Your task to perform on an android device: Clear all items from cart on target.com. Add "jbl charge 4" to the cart on target.com Image 0: 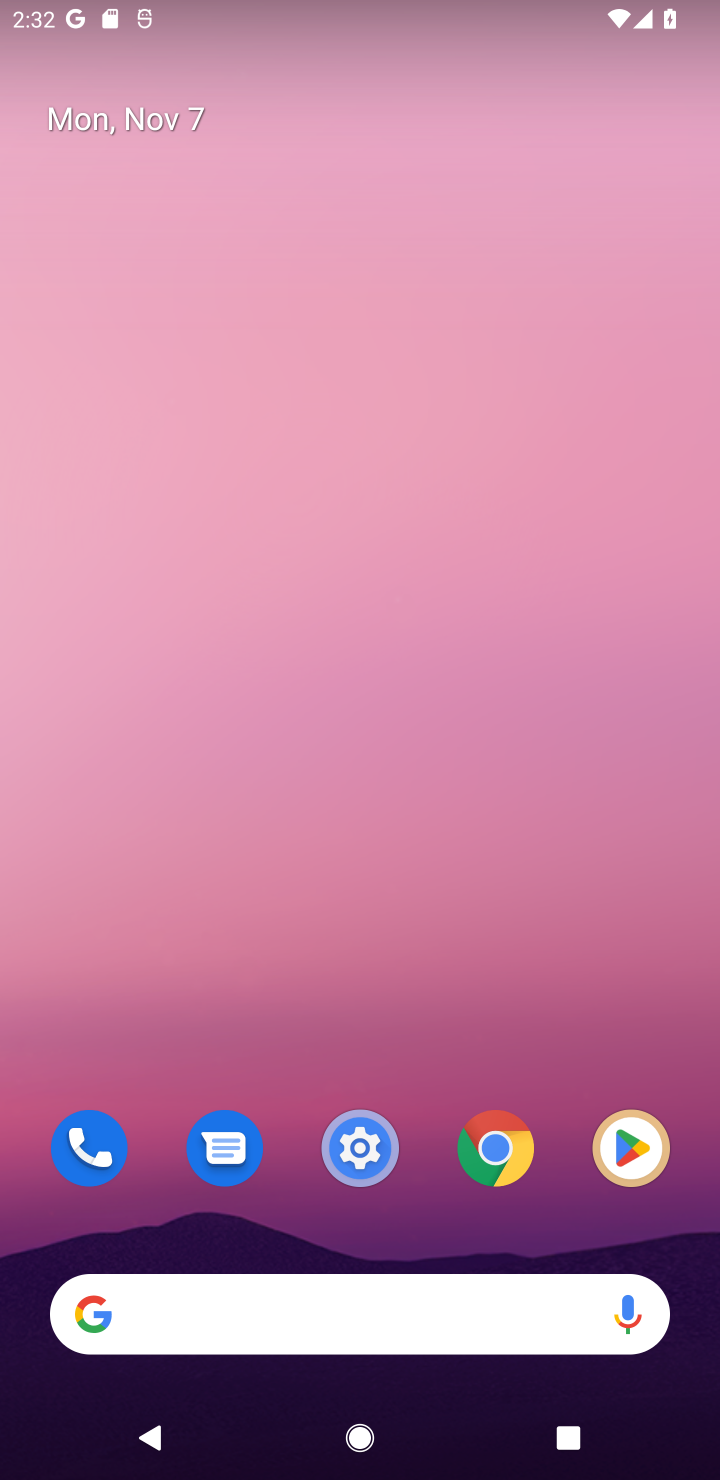
Step 0: drag from (285, 1309) to (477, 280)
Your task to perform on an android device: Clear all items from cart on target.com. Add "jbl charge 4" to the cart on target.com Image 1: 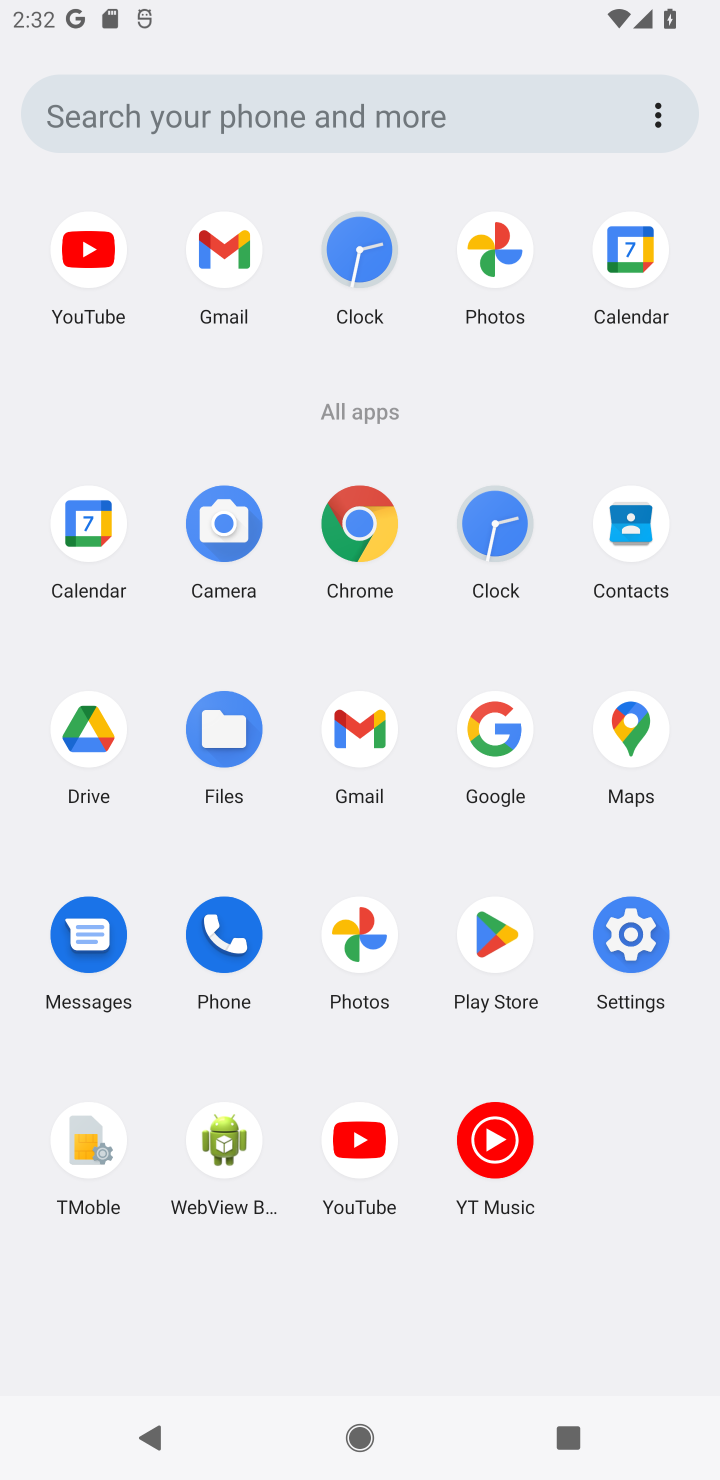
Step 1: click (366, 538)
Your task to perform on an android device: Clear all items from cart on target.com. Add "jbl charge 4" to the cart on target.com Image 2: 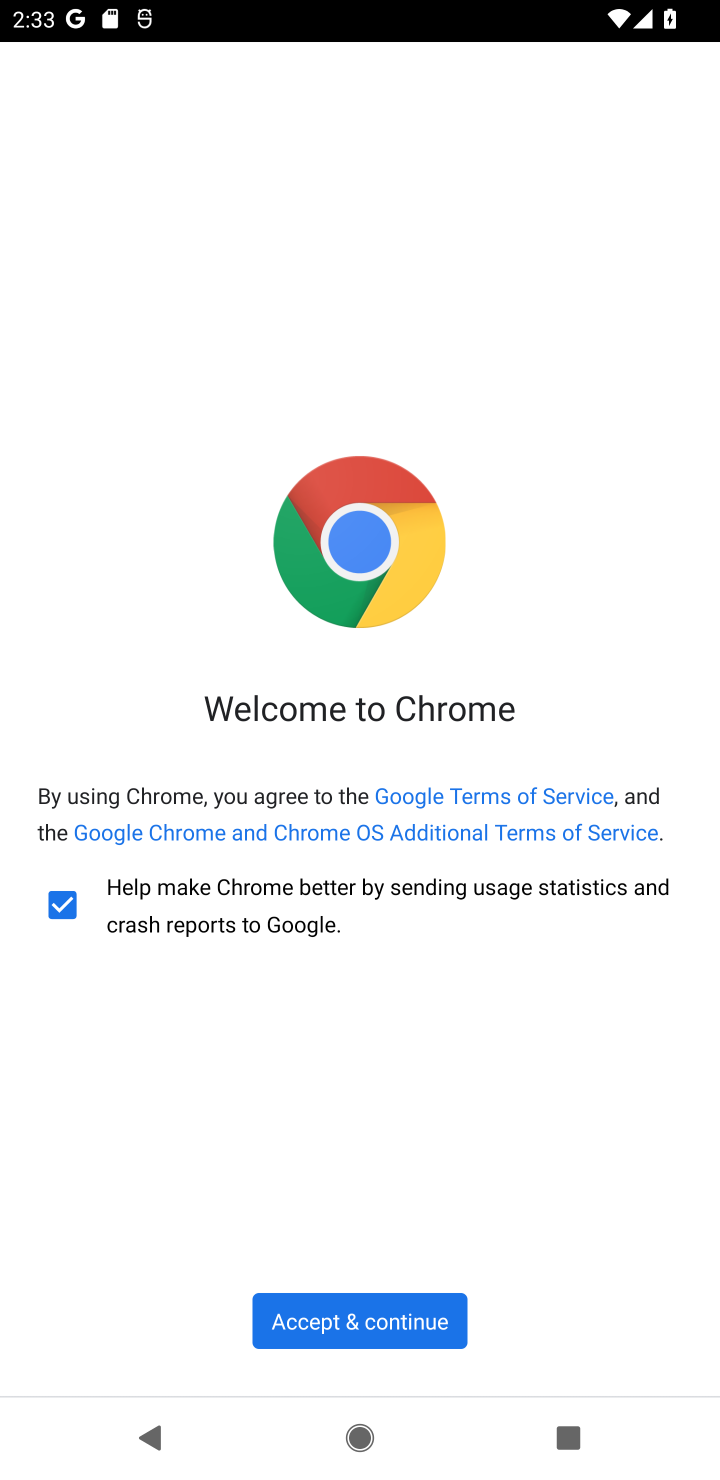
Step 2: click (313, 1319)
Your task to perform on an android device: Clear all items from cart on target.com. Add "jbl charge 4" to the cart on target.com Image 3: 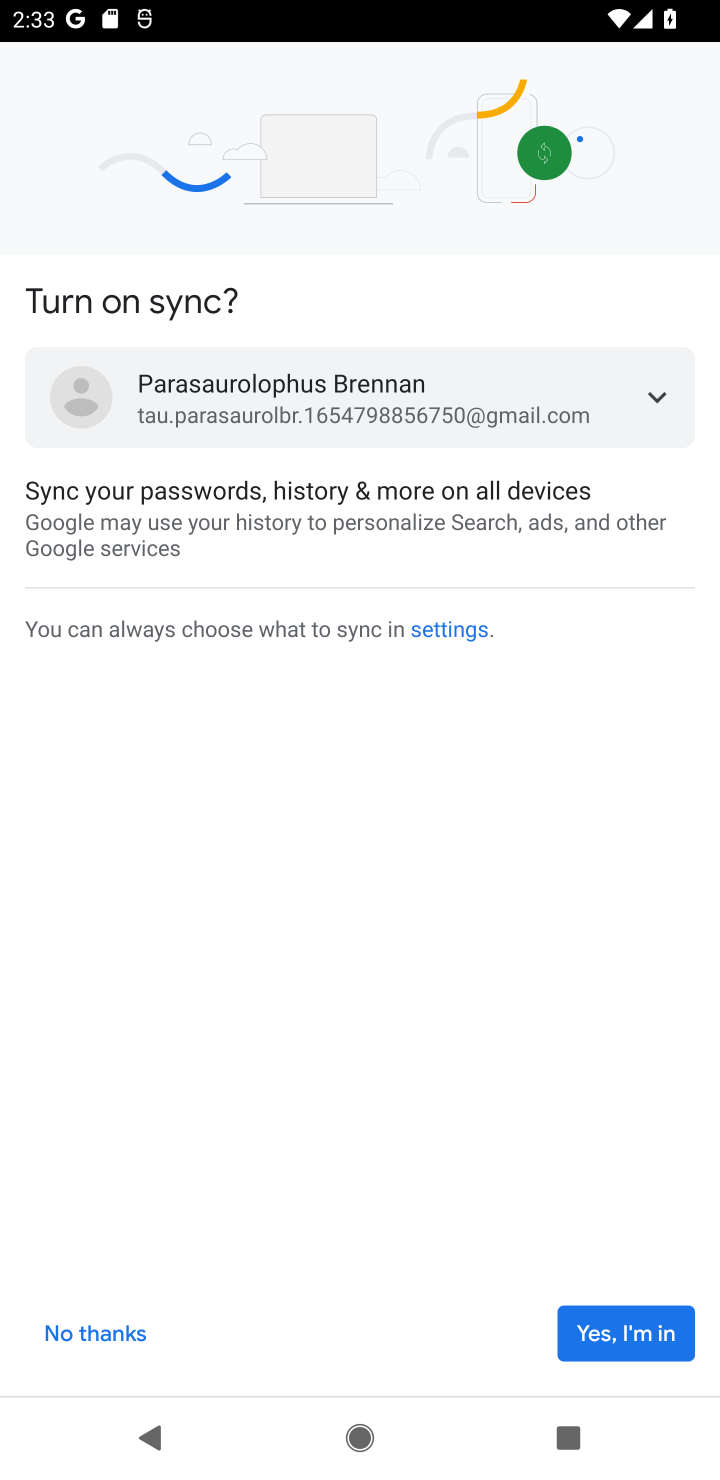
Step 3: click (569, 1317)
Your task to perform on an android device: Clear all items from cart on target.com. Add "jbl charge 4" to the cart on target.com Image 4: 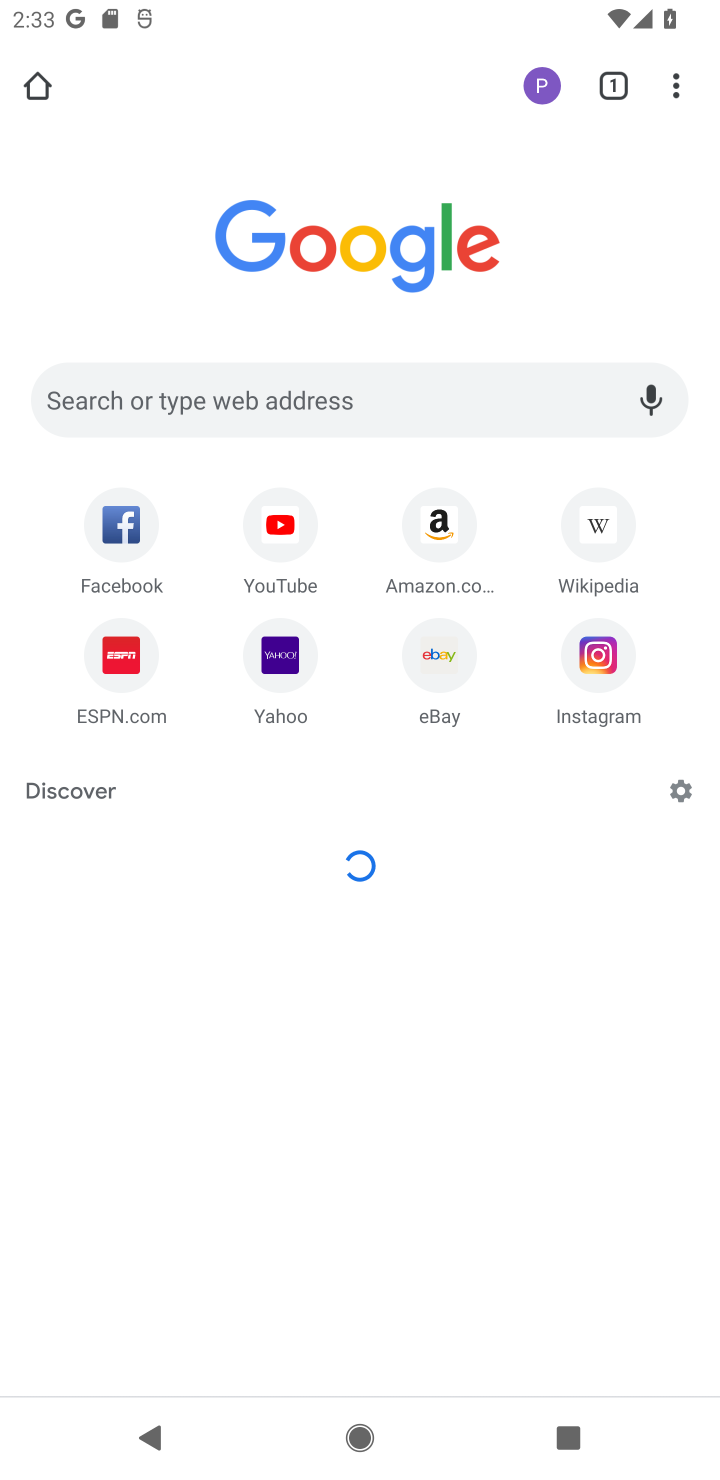
Step 4: click (259, 410)
Your task to perform on an android device: Clear all items from cart on target.com. Add "jbl charge 4" to the cart on target.com Image 5: 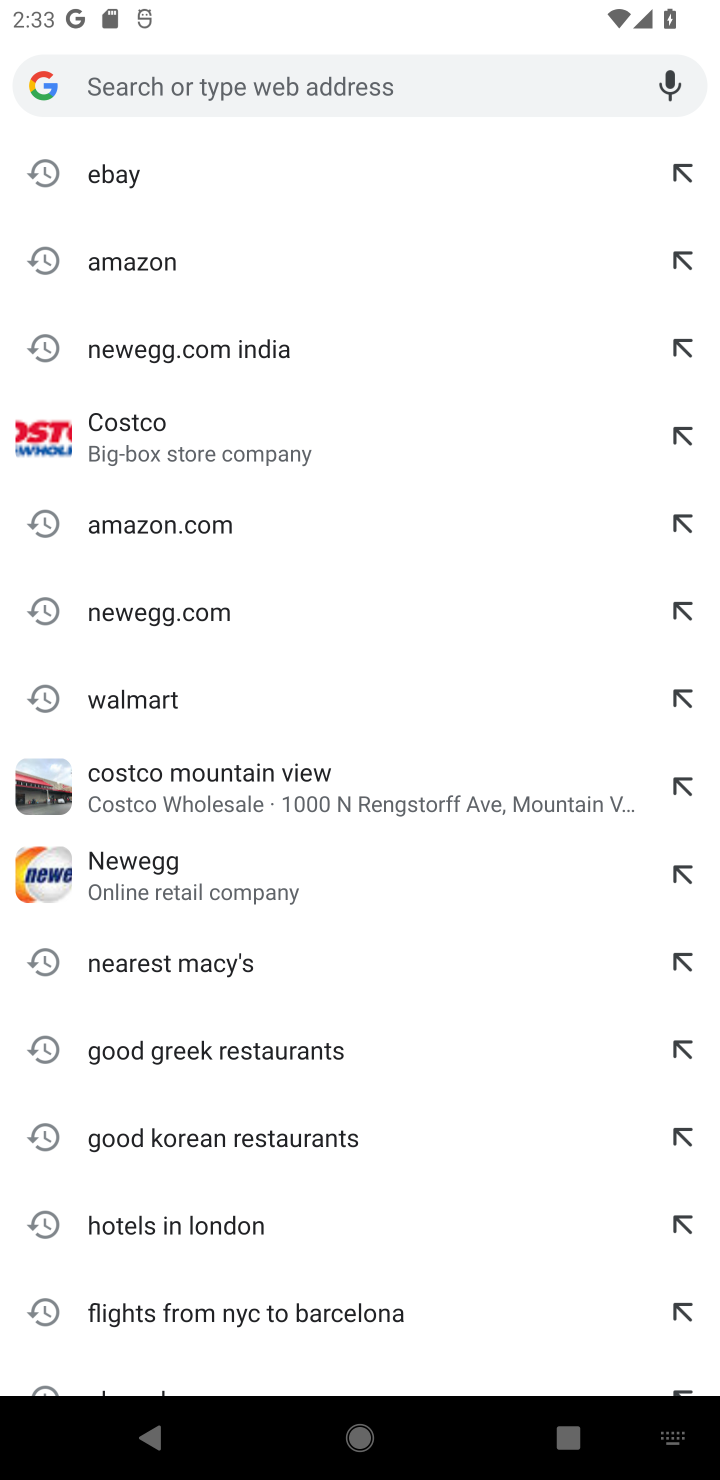
Step 5: type " target.com. "
Your task to perform on an android device: Clear all items from cart on target.com. Add "jbl charge 4" to the cart on target.com Image 6: 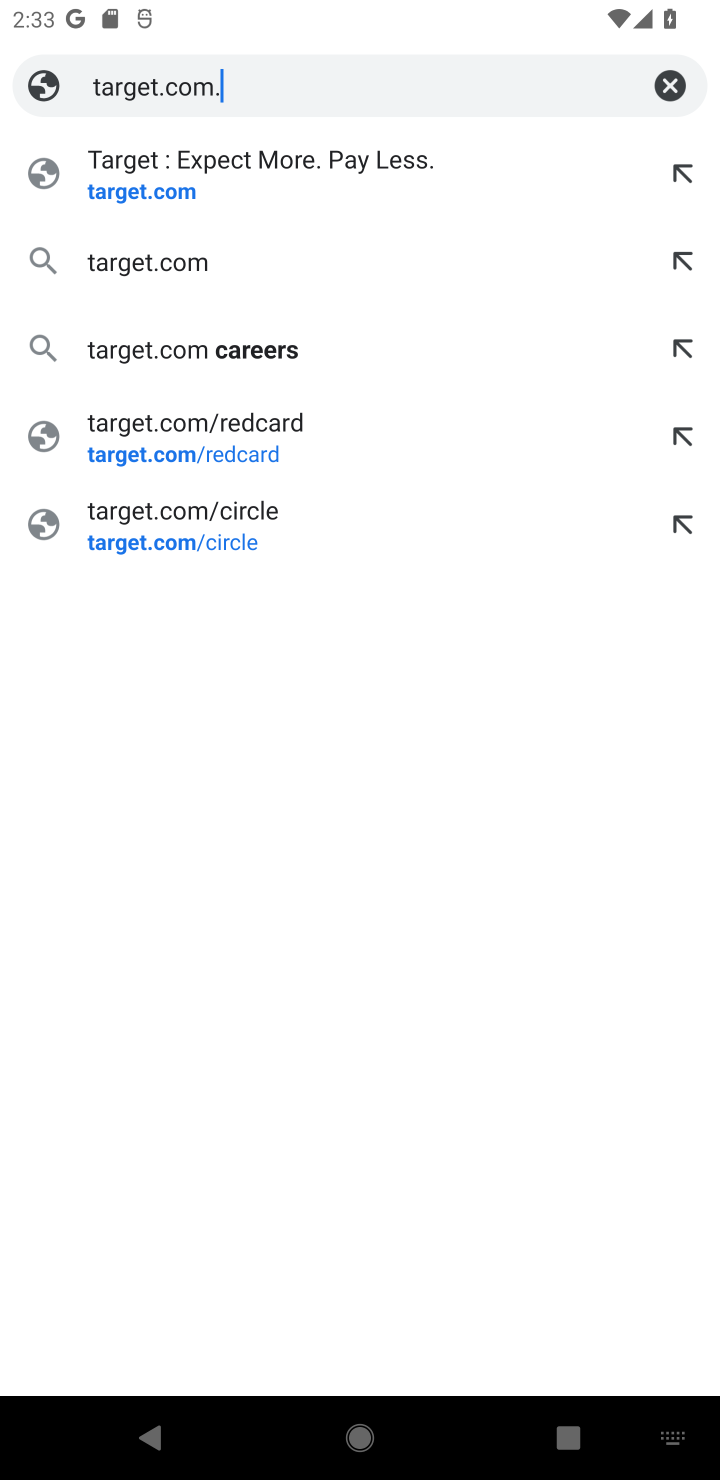
Step 6: press enter
Your task to perform on an android device: Clear all items from cart on target.com. Add "jbl charge 4" to the cart on target.com Image 7: 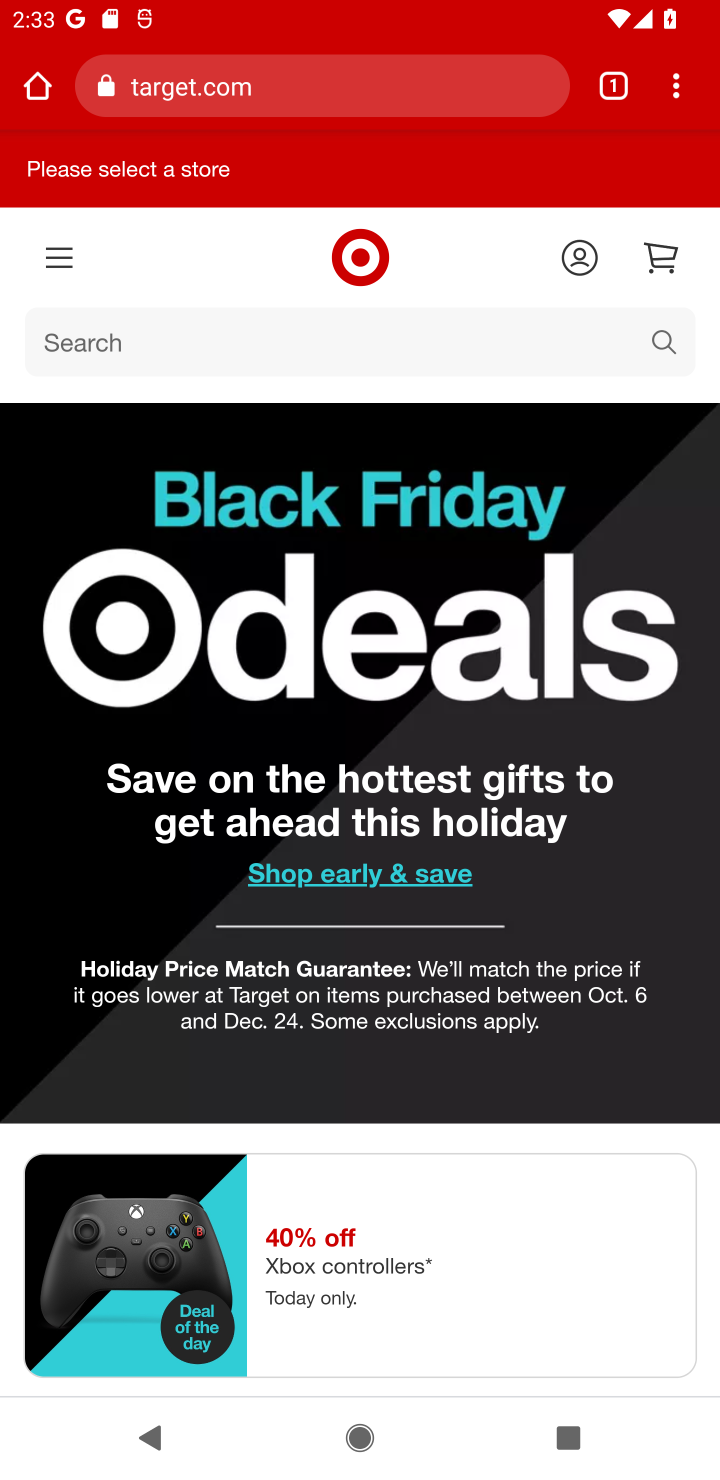
Step 7: click (317, 333)
Your task to perform on an android device: Clear all items from cart on target.com. Add "jbl charge 4" to the cart on target.com Image 8: 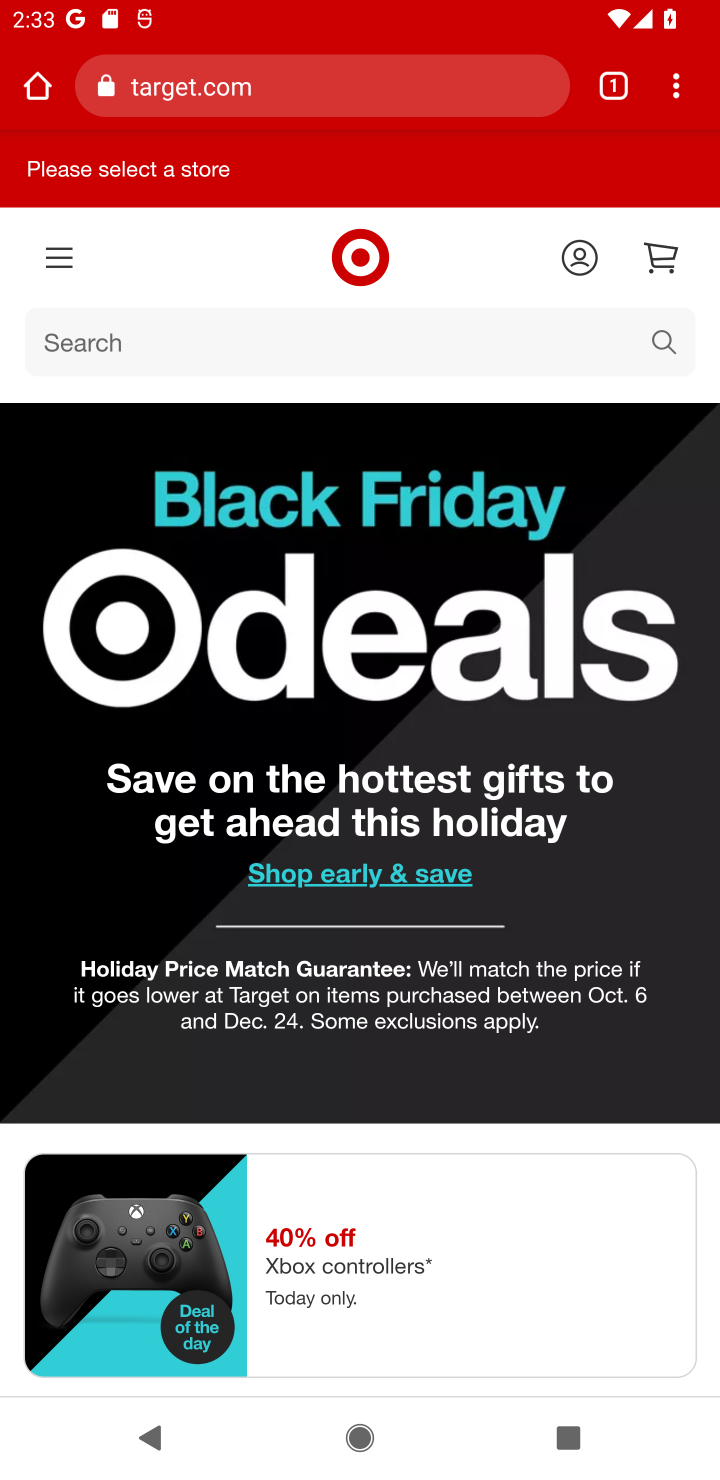
Step 8: click (664, 257)
Your task to perform on an android device: Clear all items from cart on target.com. Add "jbl charge 4" to the cart on target.com Image 9: 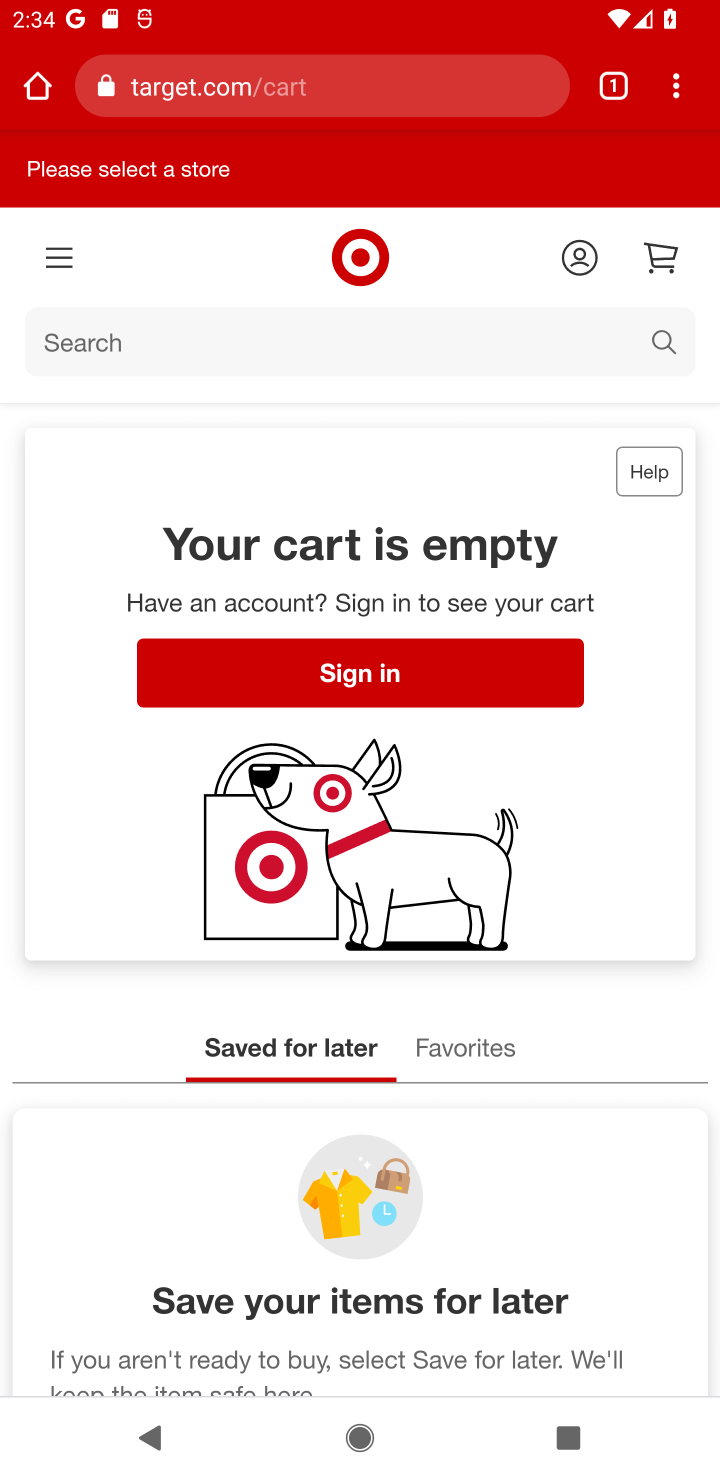
Step 9: click (402, 342)
Your task to perform on an android device: Clear all items from cart on target.com. Add "jbl charge 4" to the cart on target.com Image 10: 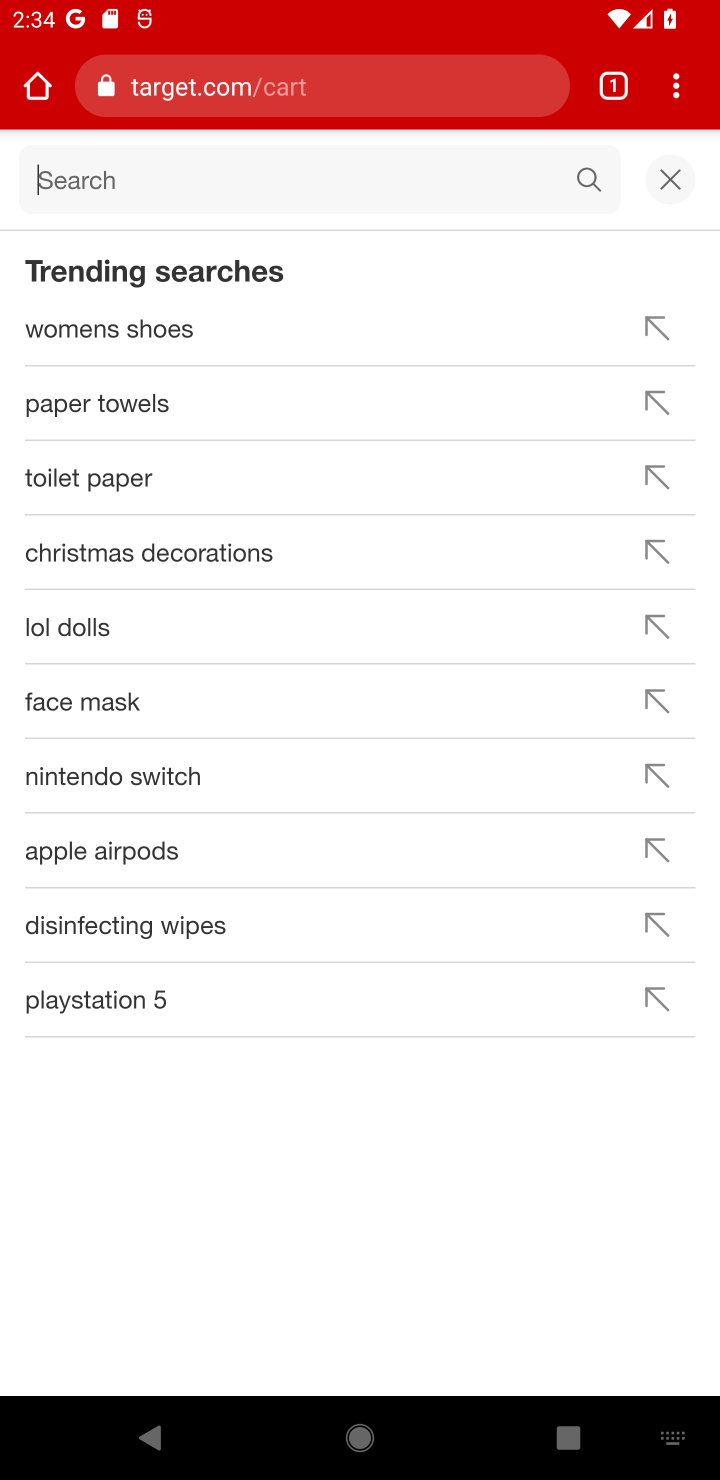
Step 10: type "jbl charge 4"
Your task to perform on an android device: Clear all items from cart on target.com. Add "jbl charge 4" to the cart on target.com Image 11: 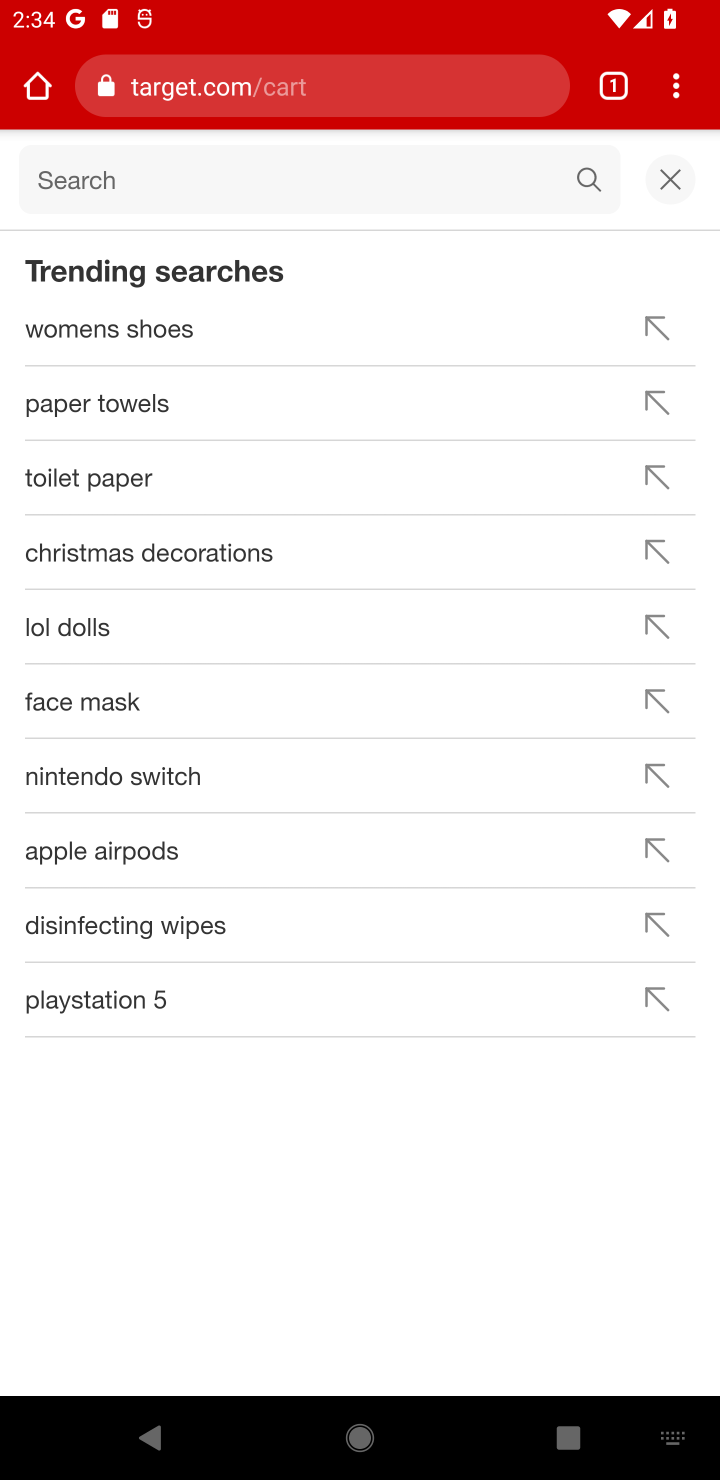
Step 11: press enter
Your task to perform on an android device: Clear all items from cart on target.com. Add "jbl charge 4" to the cart on target.com Image 12: 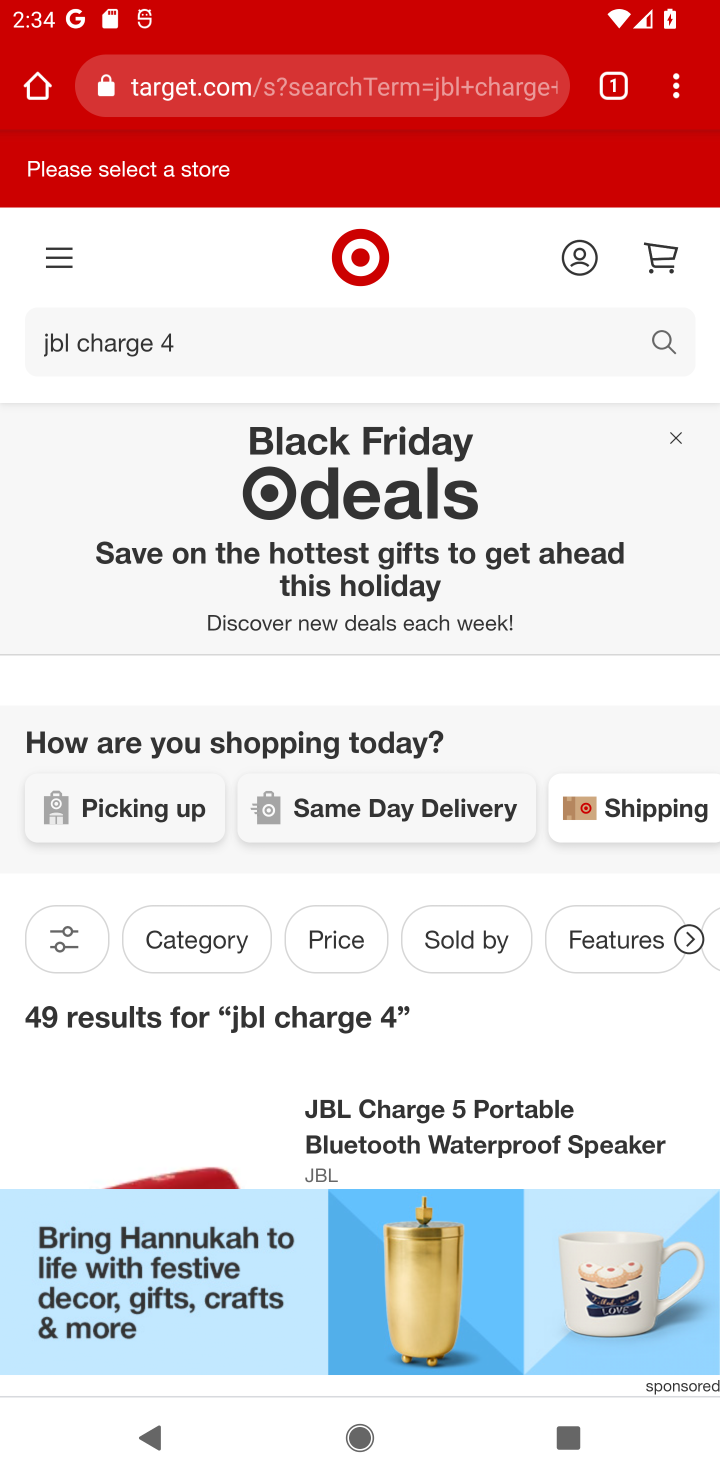
Step 12: drag from (466, 1145) to (521, 556)
Your task to perform on an android device: Clear all items from cart on target.com. Add "jbl charge 4" to the cart on target.com Image 13: 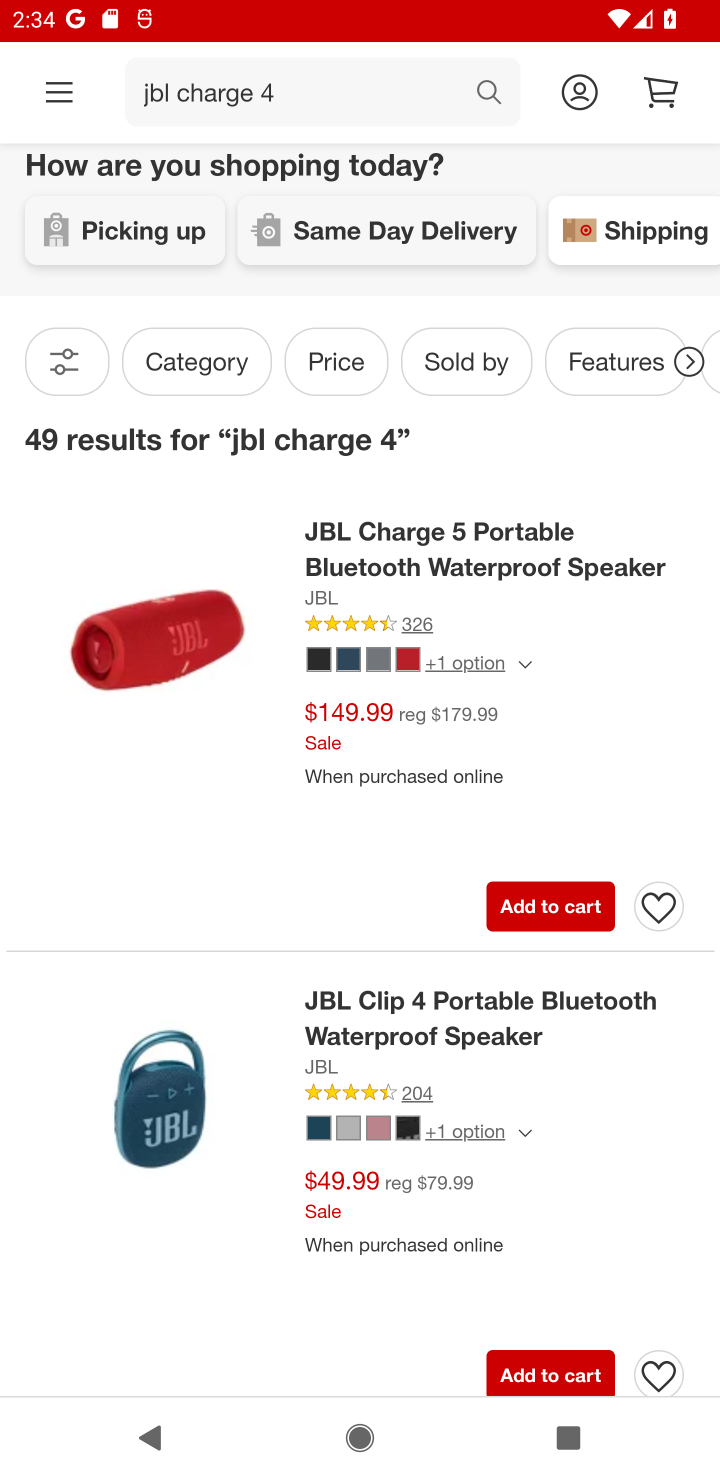
Step 13: click (555, 902)
Your task to perform on an android device: Clear all items from cart on target.com. Add "jbl charge 4" to the cart on target.com Image 14: 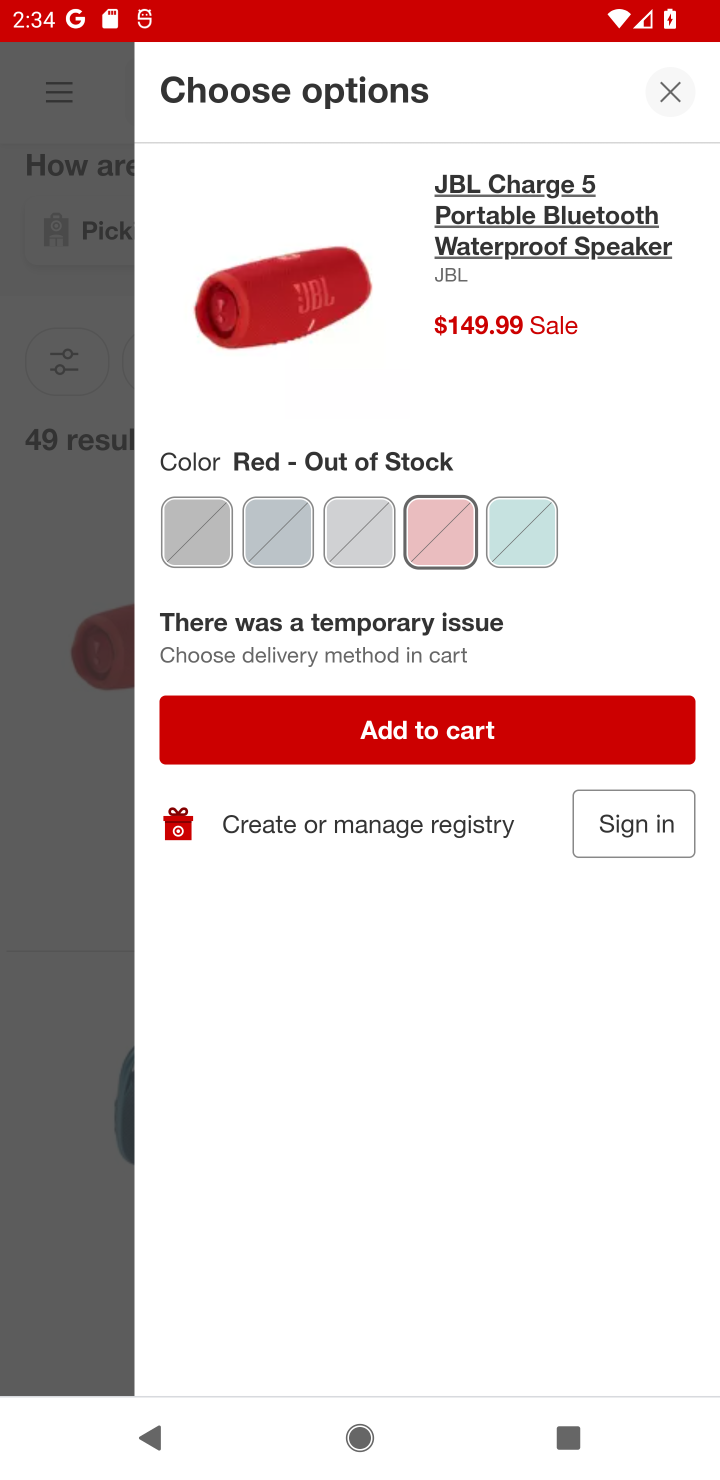
Step 14: click (422, 742)
Your task to perform on an android device: Clear all items from cart on target.com. Add "jbl charge 4" to the cart on target.com Image 15: 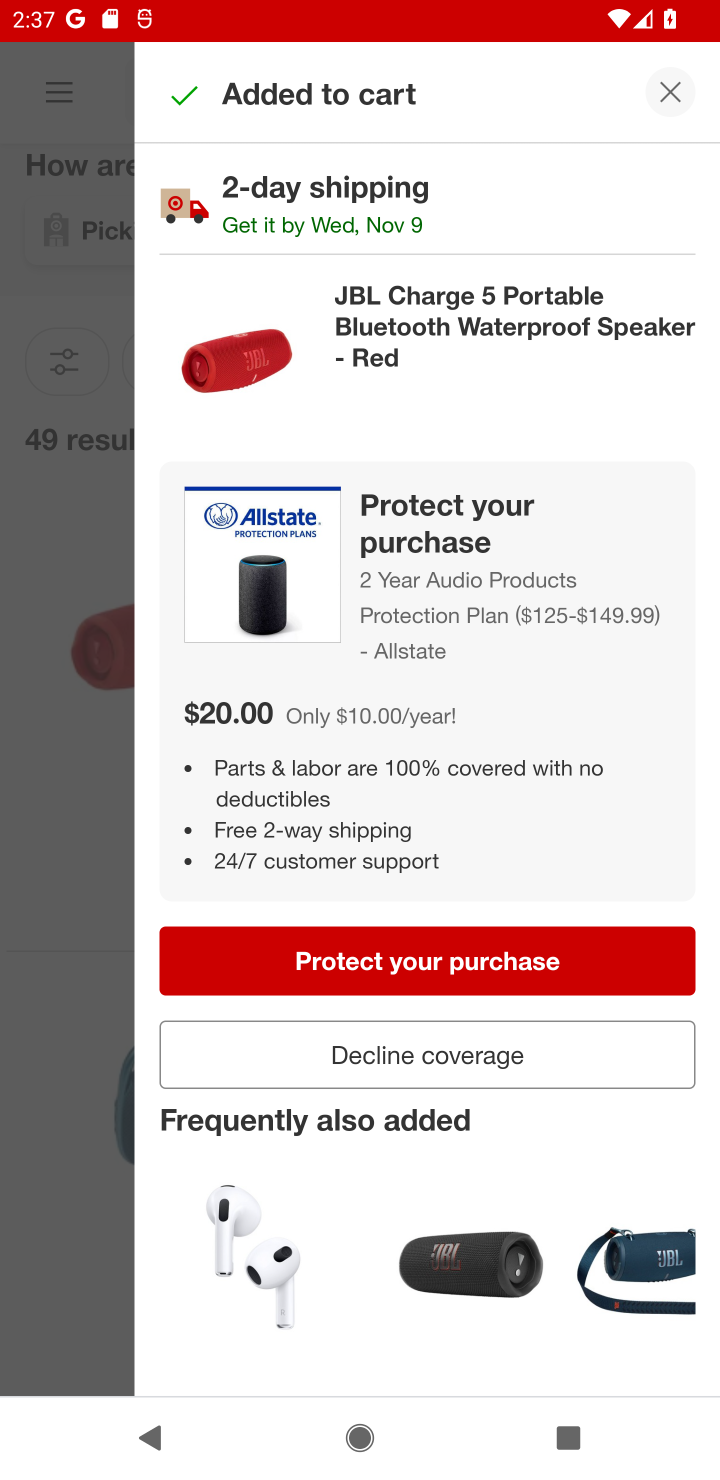
Step 15: task complete